Your task to perform on an android device: Open Reddit.com Image 0: 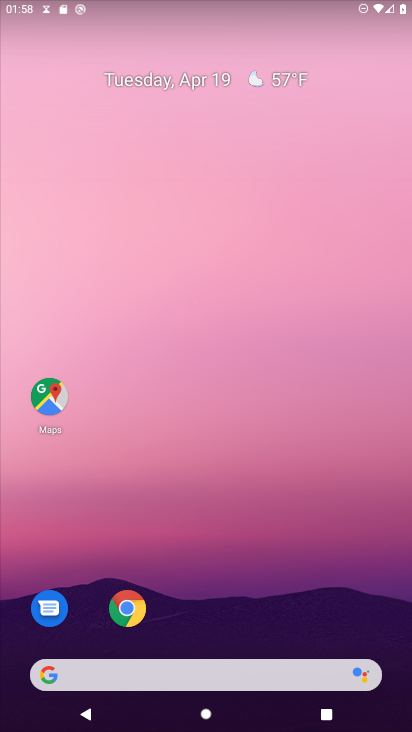
Step 0: drag from (252, 608) to (202, 296)
Your task to perform on an android device: Open Reddit.com Image 1: 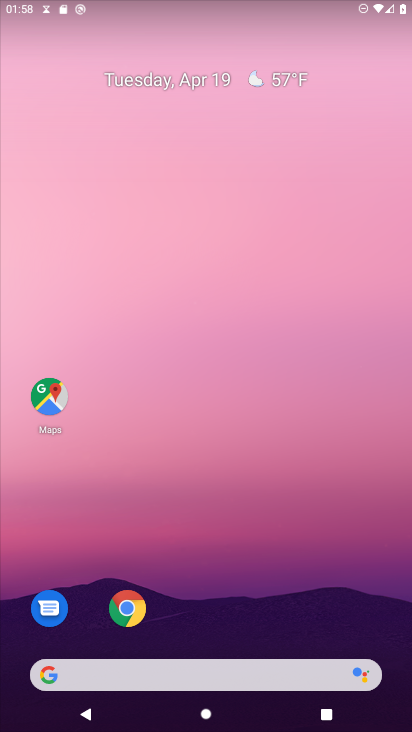
Step 1: click (124, 611)
Your task to perform on an android device: Open Reddit.com Image 2: 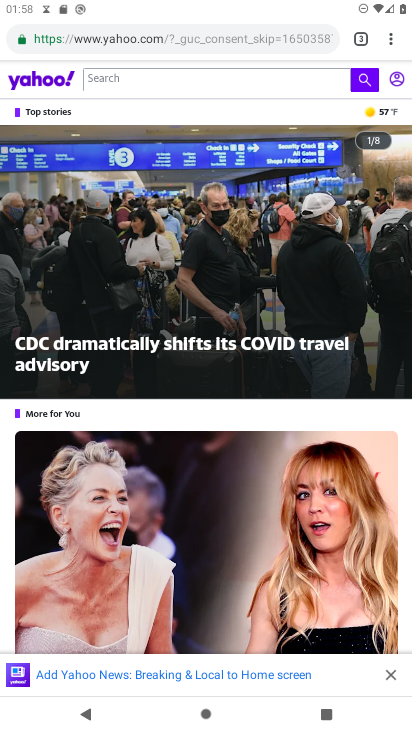
Step 2: click (363, 33)
Your task to perform on an android device: Open Reddit.com Image 3: 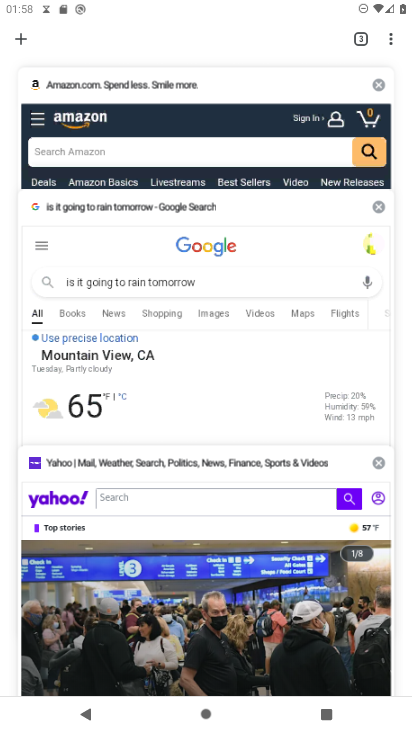
Step 3: click (23, 36)
Your task to perform on an android device: Open Reddit.com Image 4: 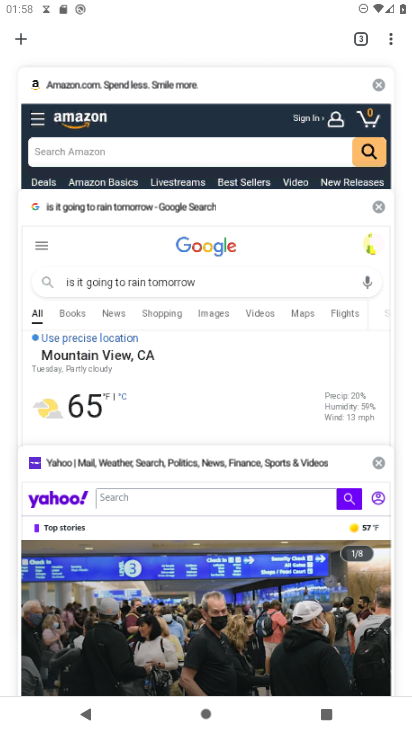
Step 4: click (23, 36)
Your task to perform on an android device: Open Reddit.com Image 5: 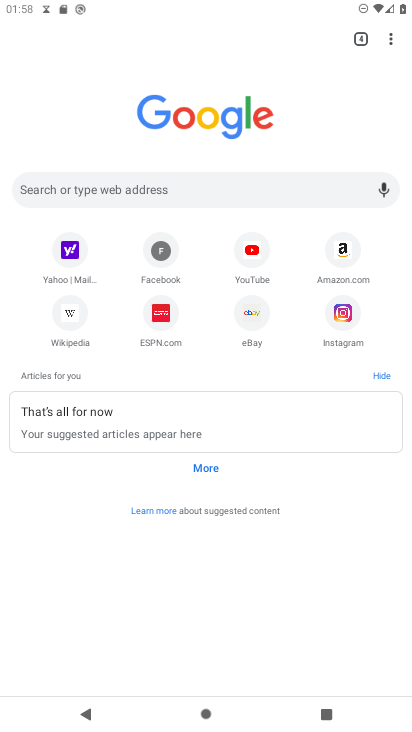
Step 5: click (159, 206)
Your task to perform on an android device: Open Reddit.com Image 6: 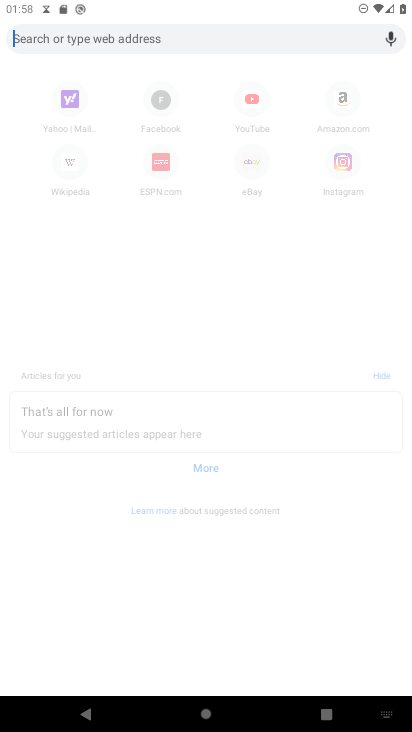
Step 6: type "reddit.com"
Your task to perform on an android device: Open Reddit.com Image 7: 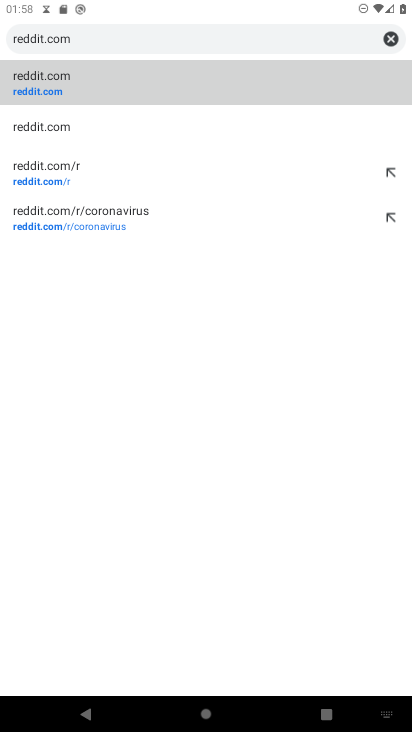
Step 7: click (110, 92)
Your task to perform on an android device: Open Reddit.com Image 8: 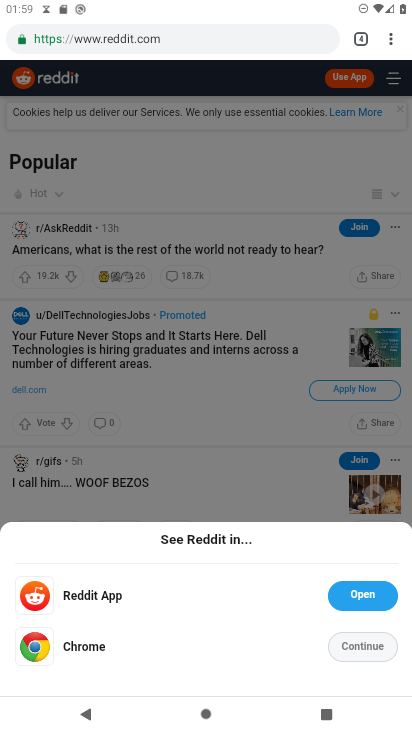
Step 8: click (376, 646)
Your task to perform on an android device: Open Reddit.com Image 9: 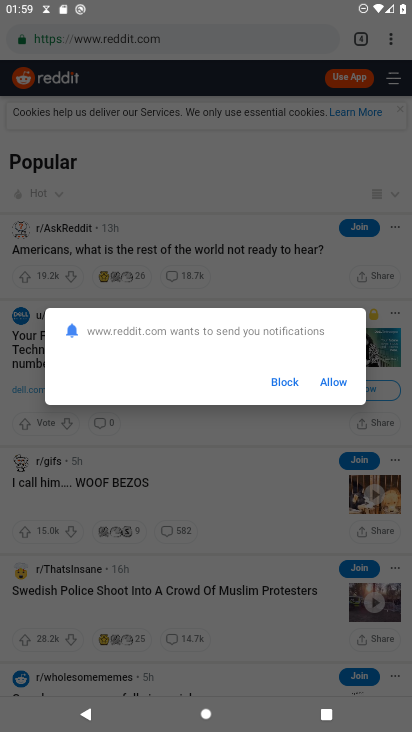
Step 9: task complete